Your task to perform on an android device: refresh tabs in the chrome app Image 0: 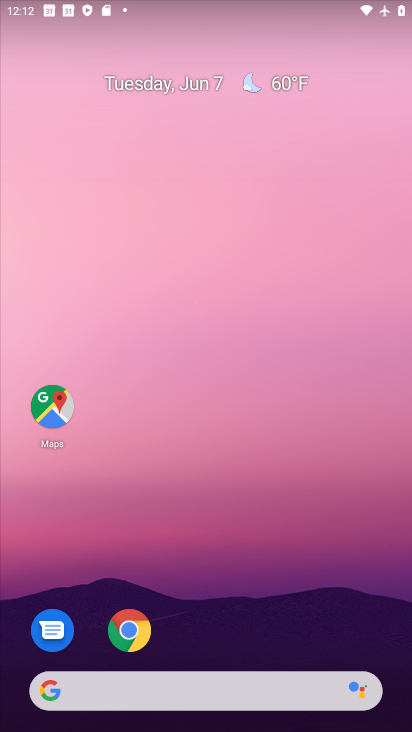
Step 0: drag from (397, 653) to (248, 72)
Your task to perform on an android device: refresh tabs in the chrome app Image 1: 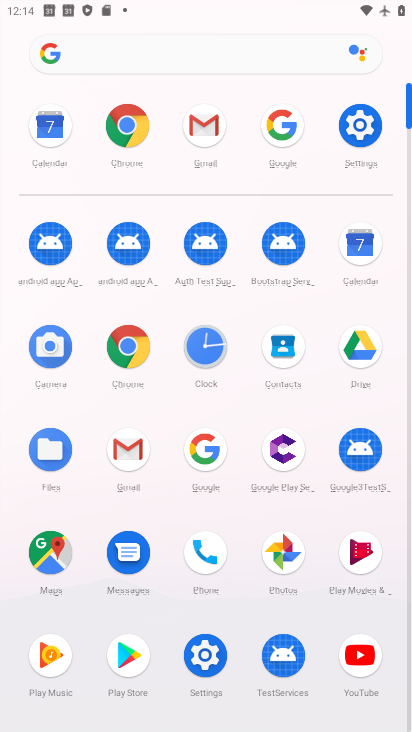
Step 1: click (143, 341)
Your task to perform on an android device: refresh tabs in the chrome app Image 2: 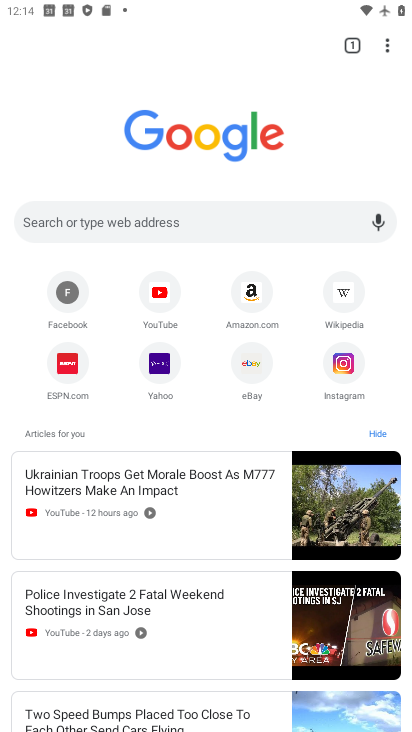
Step 2: click (391, 43)
Your task to perform on an android device: refresh tabs in the chrome app Image 3: 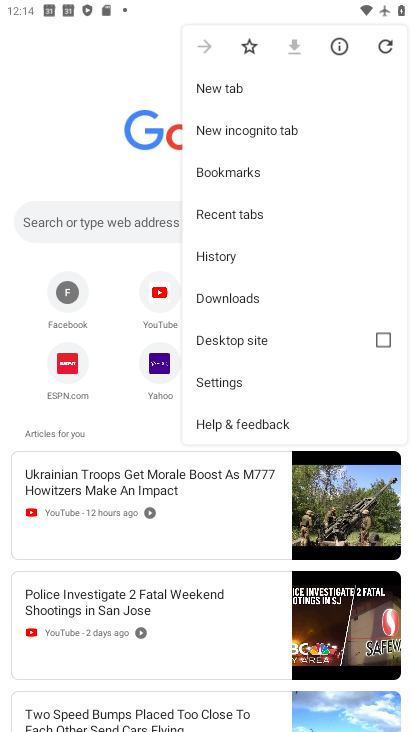
Step 3: click (391, 43)
Your task to perform on an android device: refresh tabs in the chrome app Image 4: 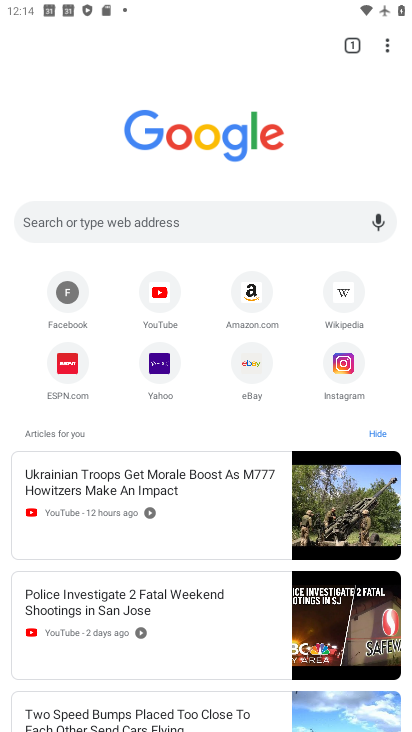
Step 4: task complete